Your task to perform on an android device: turn on data saver in the chrome app Image 0: 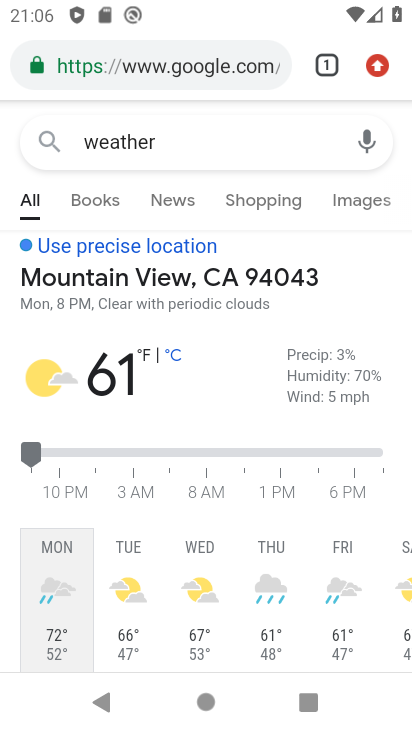
Step 0: press home button
Your task to perform on an android device: turn on data saver in the chrome app Image 1: 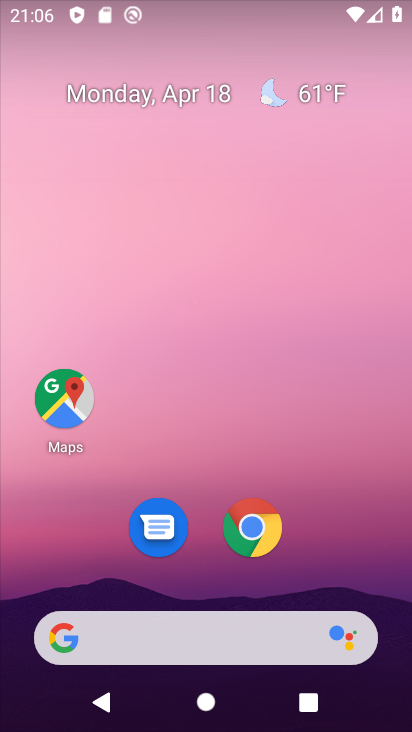
Step 1: click (277, 534)
Your task to perform on an android device: turn on data saver in the chrome app Image 2: 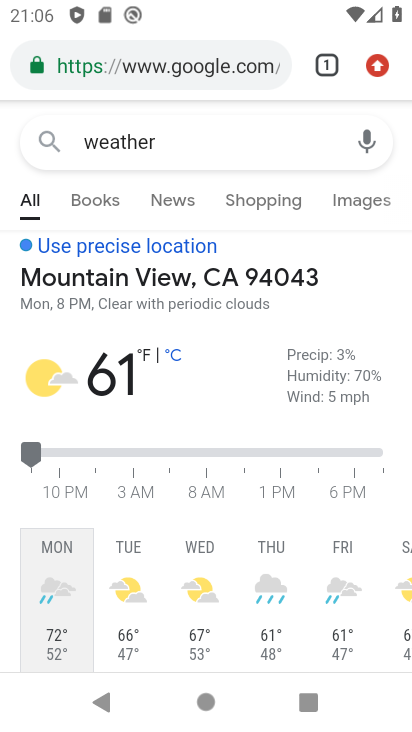
Step 2: click (382, 71)
Your task to perform on an android device: turn on data saver in the chrome app Image 3: 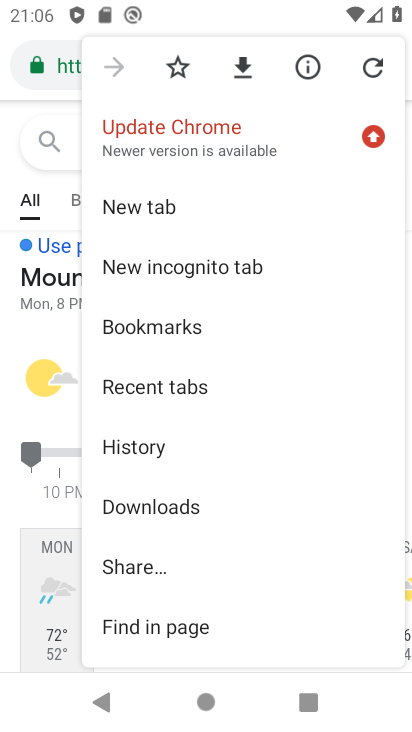
Step 3: drag from (202, 551) to (250, 123)
Your task to perform on an android device: turn on data saver in the chrome app Image 4: 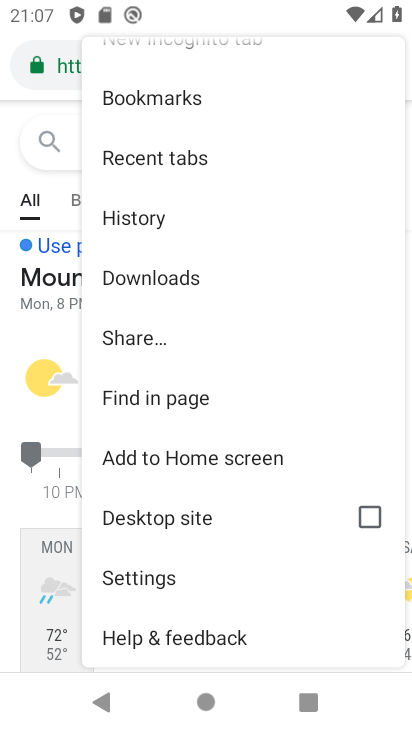
Step 4: click (187, 587)
Your task to perform on an android device: turn on data saver in the chrome app Image 5: 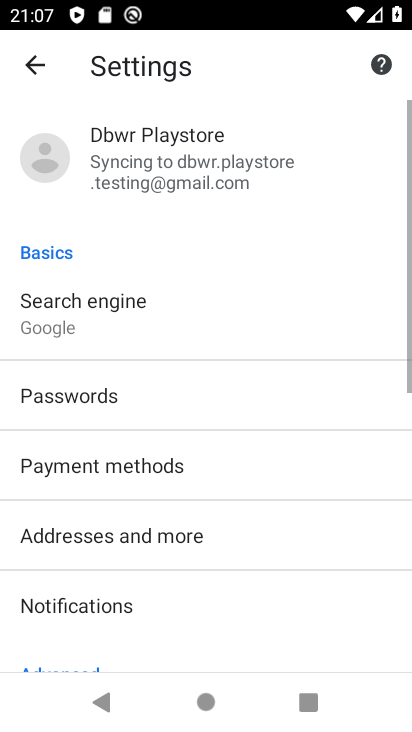
Step 5: drag from (187, 587) to (249, 187)
Your task to perform on an android device: turn on data saver in the chrome app Image 6: 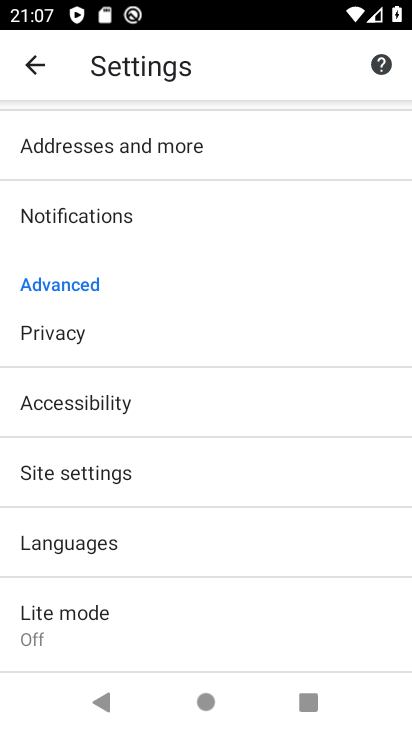
Step 6: click (151, 627)
Your task to perform on an android device: turn on data saver in the chrome app Image 7: 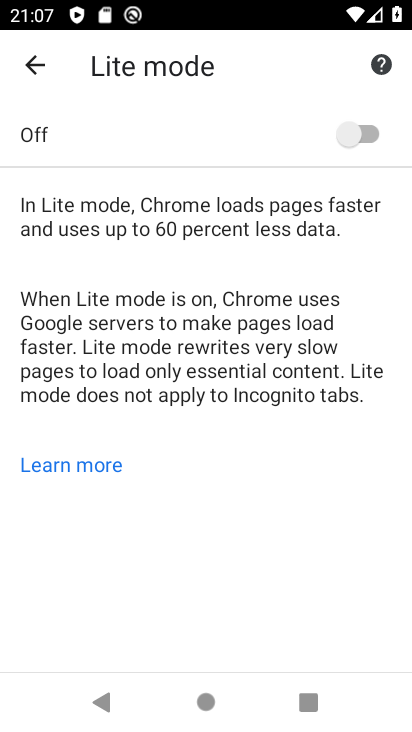
Step 7: click (378, 133)
Your task to perform on an android device: turn on data saver in the chrome app Image 8: 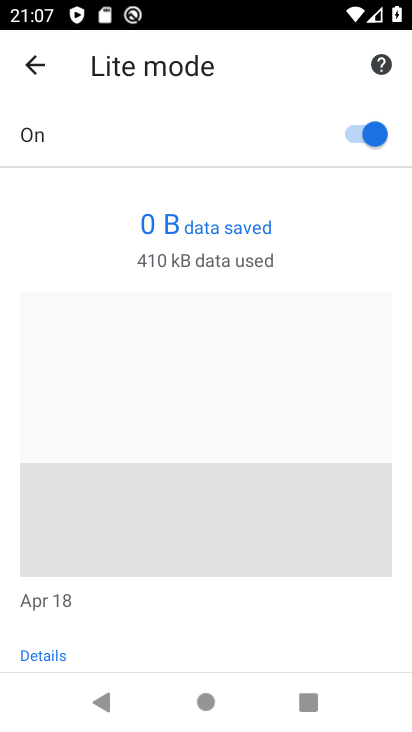
Step 8: task complete